Your task to perform on an android device: Open settings on Google Maps Image 0: 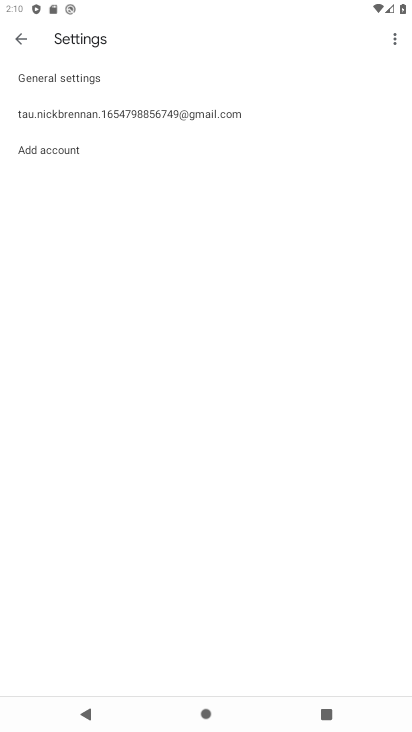
Step 0: press home button
Your task to perform on an android device: Open settings on Google Maps Image 1: 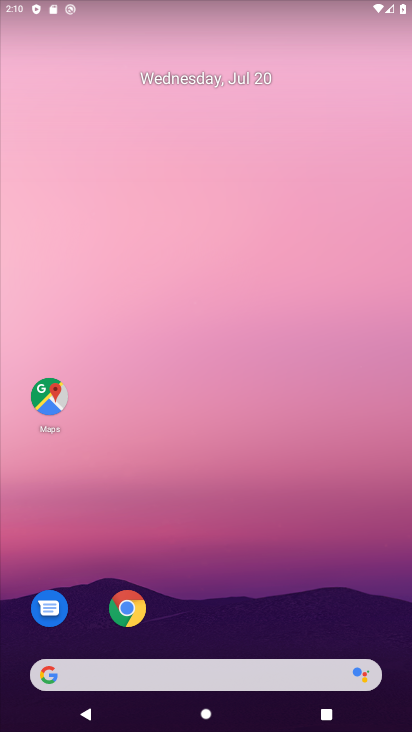
Step 1: click (58, 414)
Your task to perform on an android device: Open settings on Google Maps Image 2: 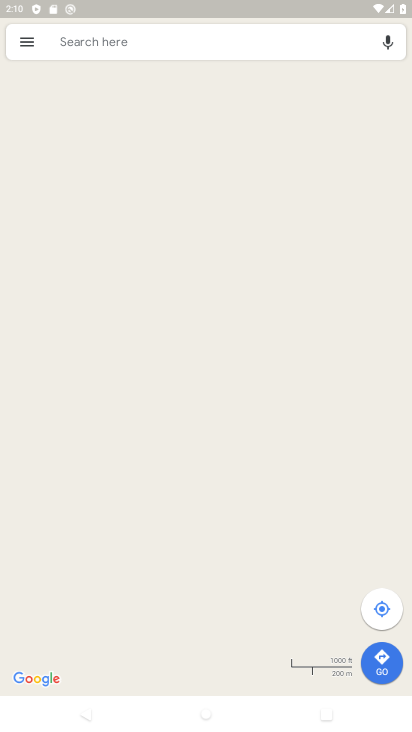
Step 2: click (23, 42)
Your task to perform on an android device: Open settings on Google Maps Image 3: 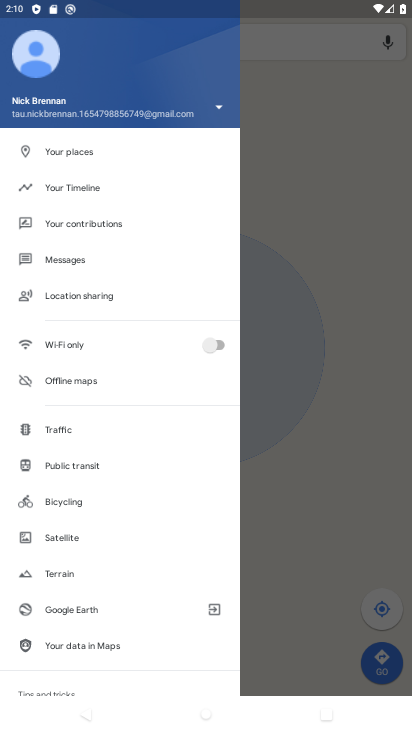
Step 3: drag from (116, 642) to (113, 397)
Your task to perform on an android device: Open settings on Google Maps Image 4: 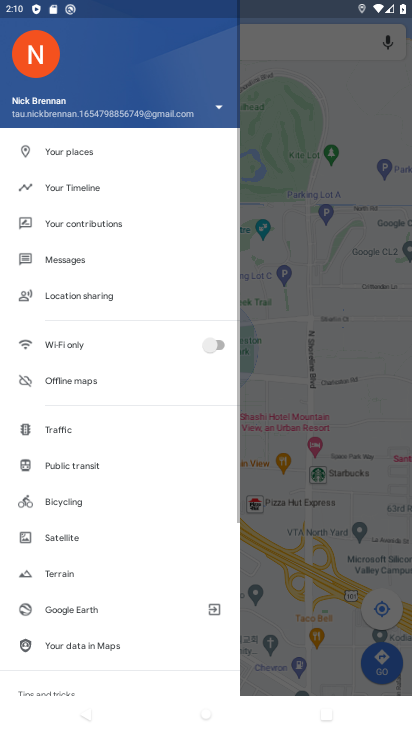
Step 4: drag from (73, 602) to (79, 421)
Your task to perform on an android device: Open settings on Google Maps Image 5: 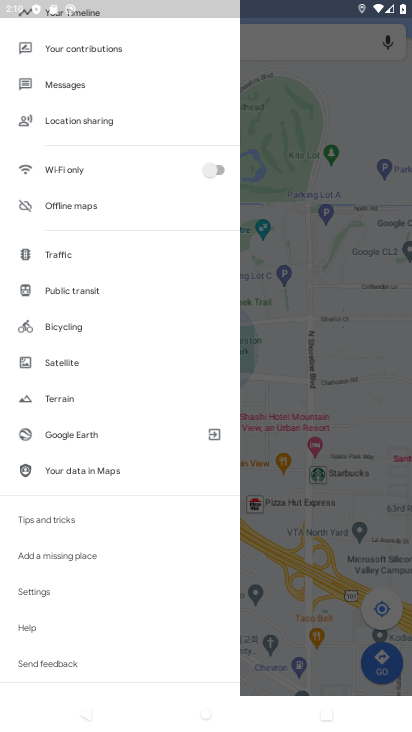
Step 5: click (59, 589)
Your task to perform on an android device: Open settings on Google Maps Image 6: 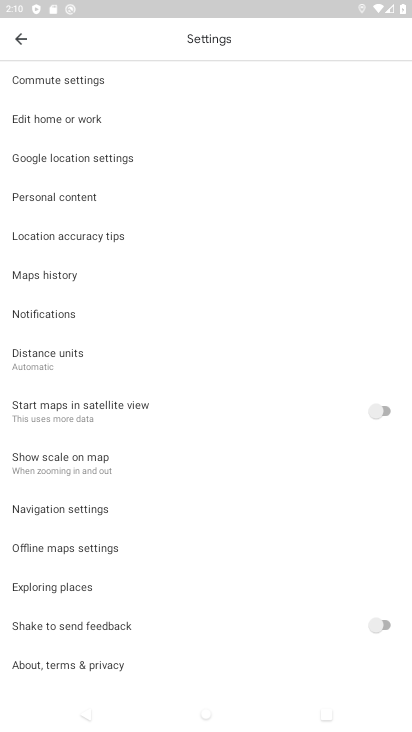
Step 6: task complete